Your task to perform on an android device: change the clock style Image 0: 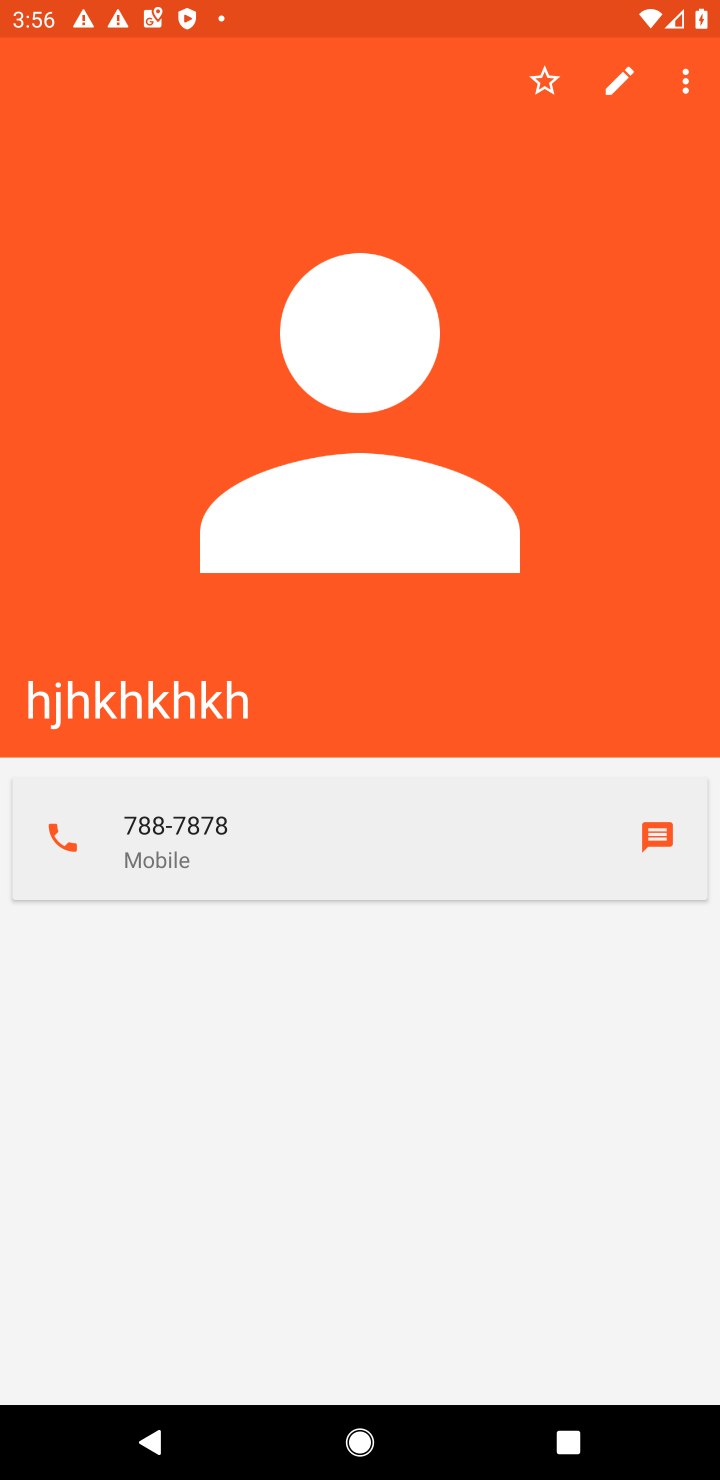
Step 0: press home button
Your task to perform on an android device: change the clock style Image 1: 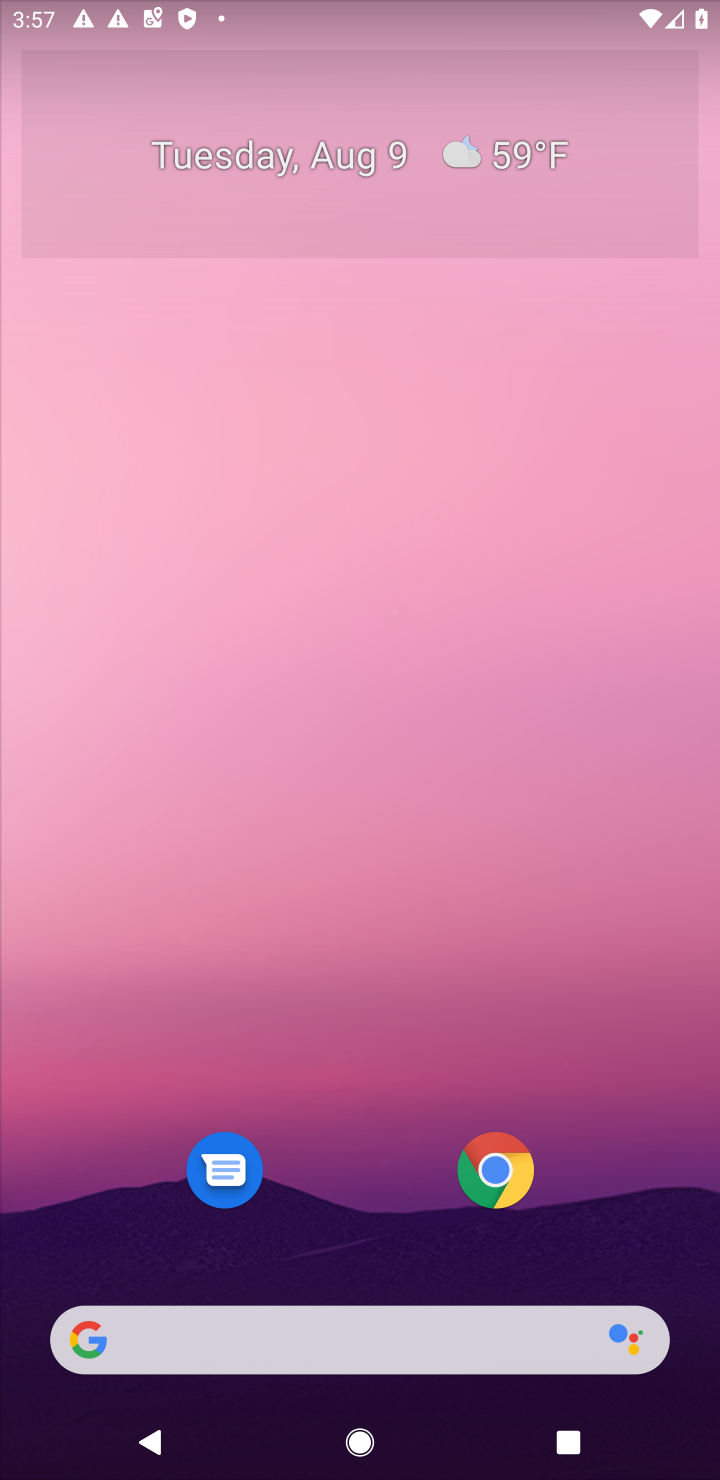
Step 1: drag from (309, 1090) to (230, 194)
Your task to perform on an android device: change the clock style Image 2: 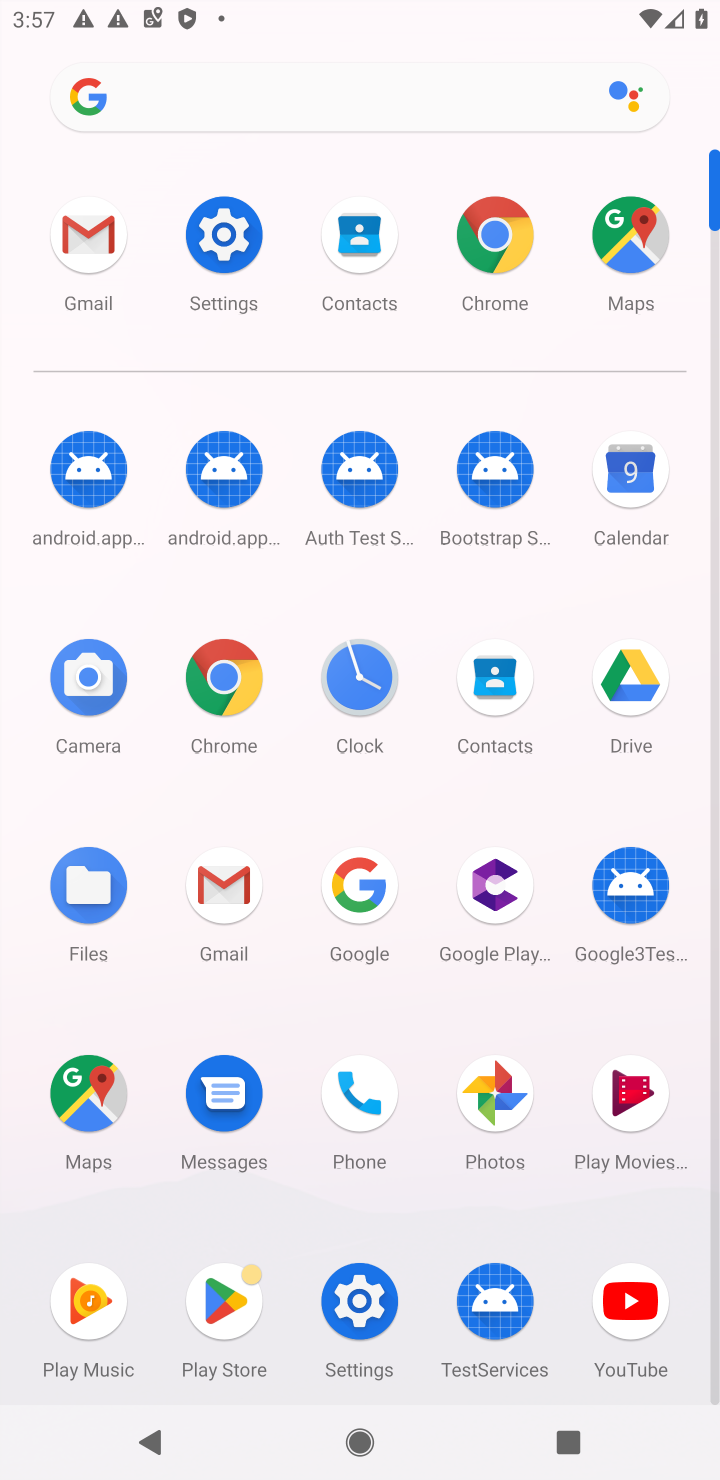
Step 2: click (360, 705)
Your task to perform on an android device: change the clock style Image 3: 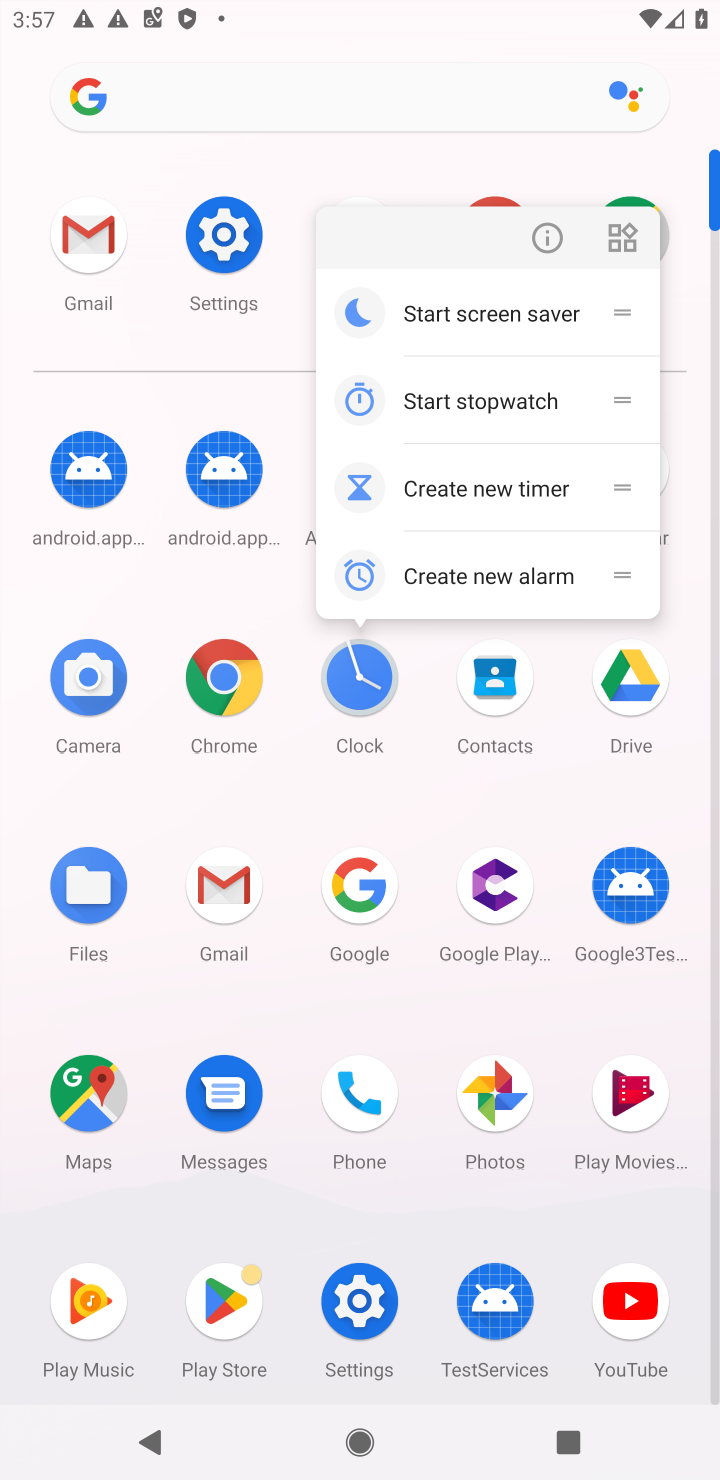
Step 3: click (364, 679)
Your task to perform on an android device: change the clock style Image 4: 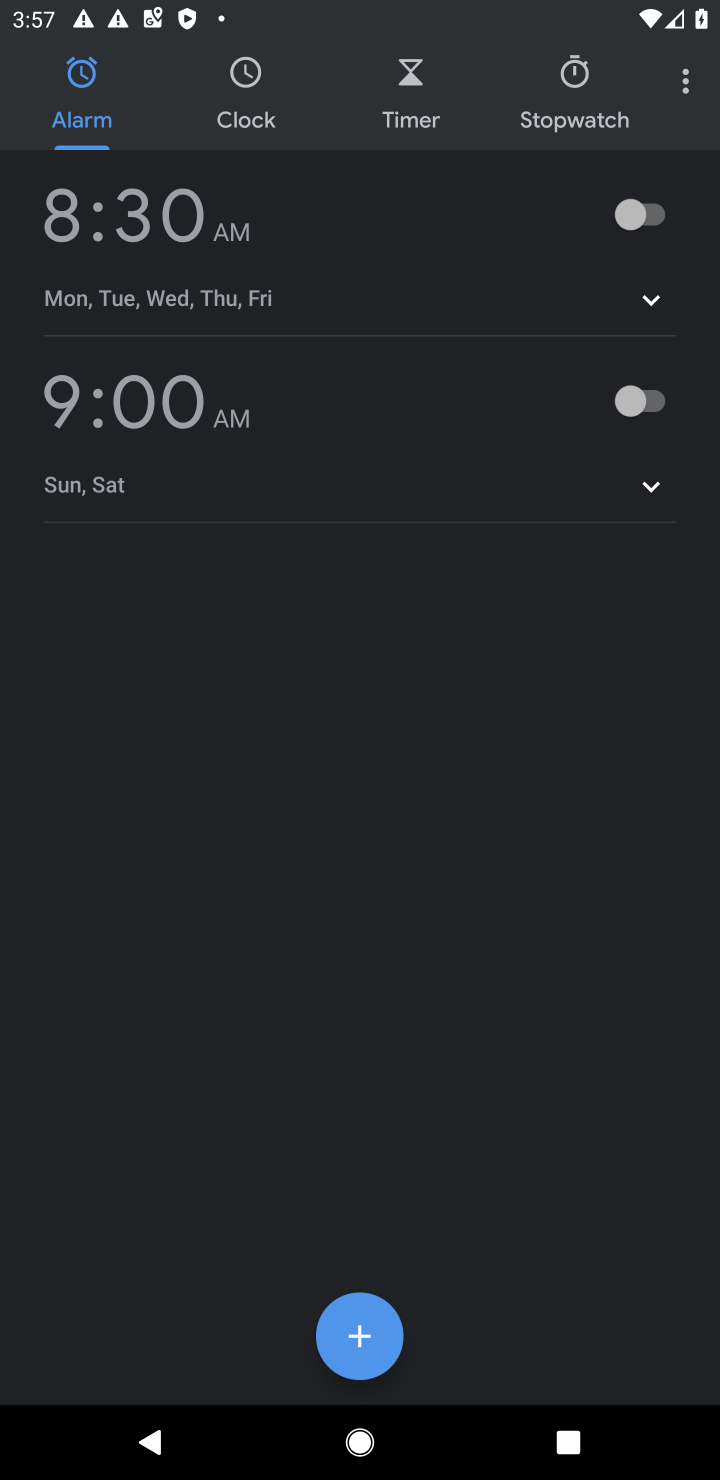
Step 4: click (689, 89)
Your task to perform on an android device: change the clock style Image 5: 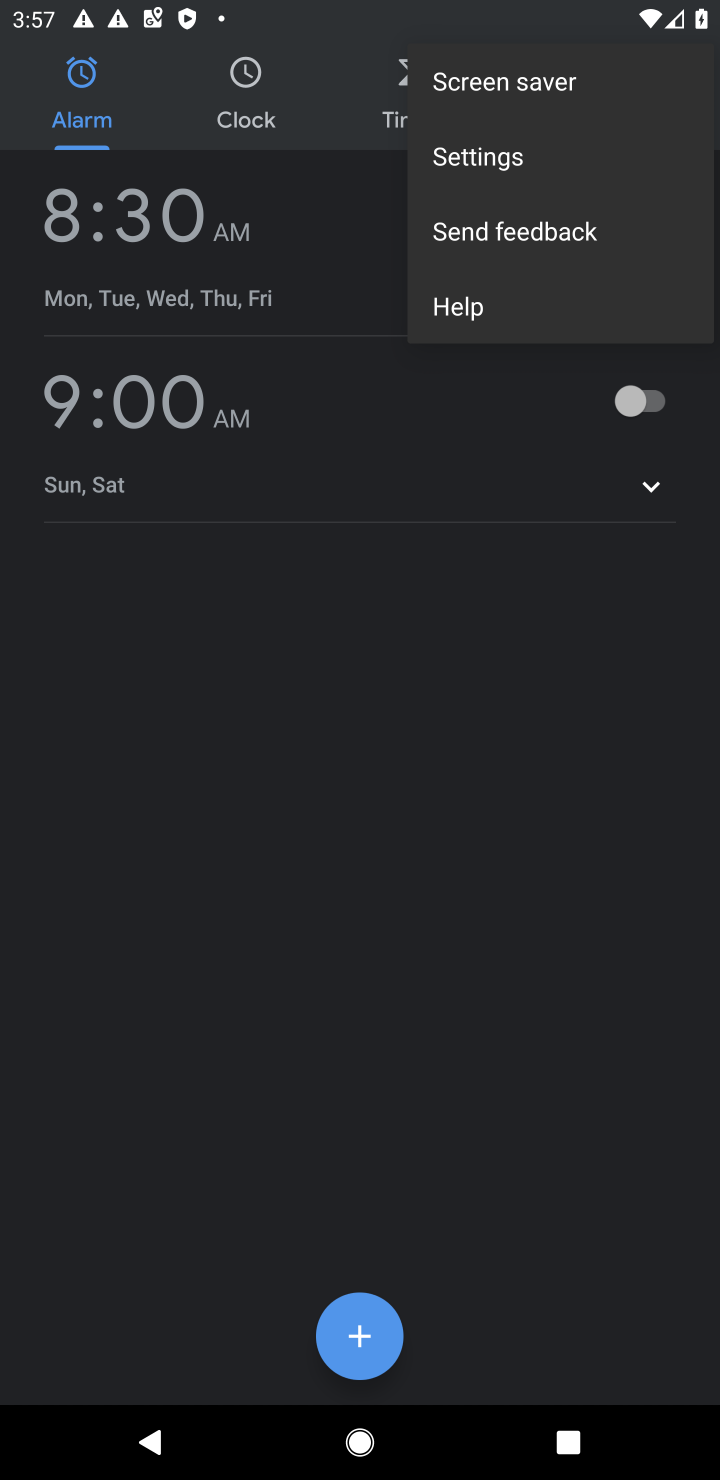
Step 5: click (505, 162)
Your task to perform on an android device: change the clock style Image 6: 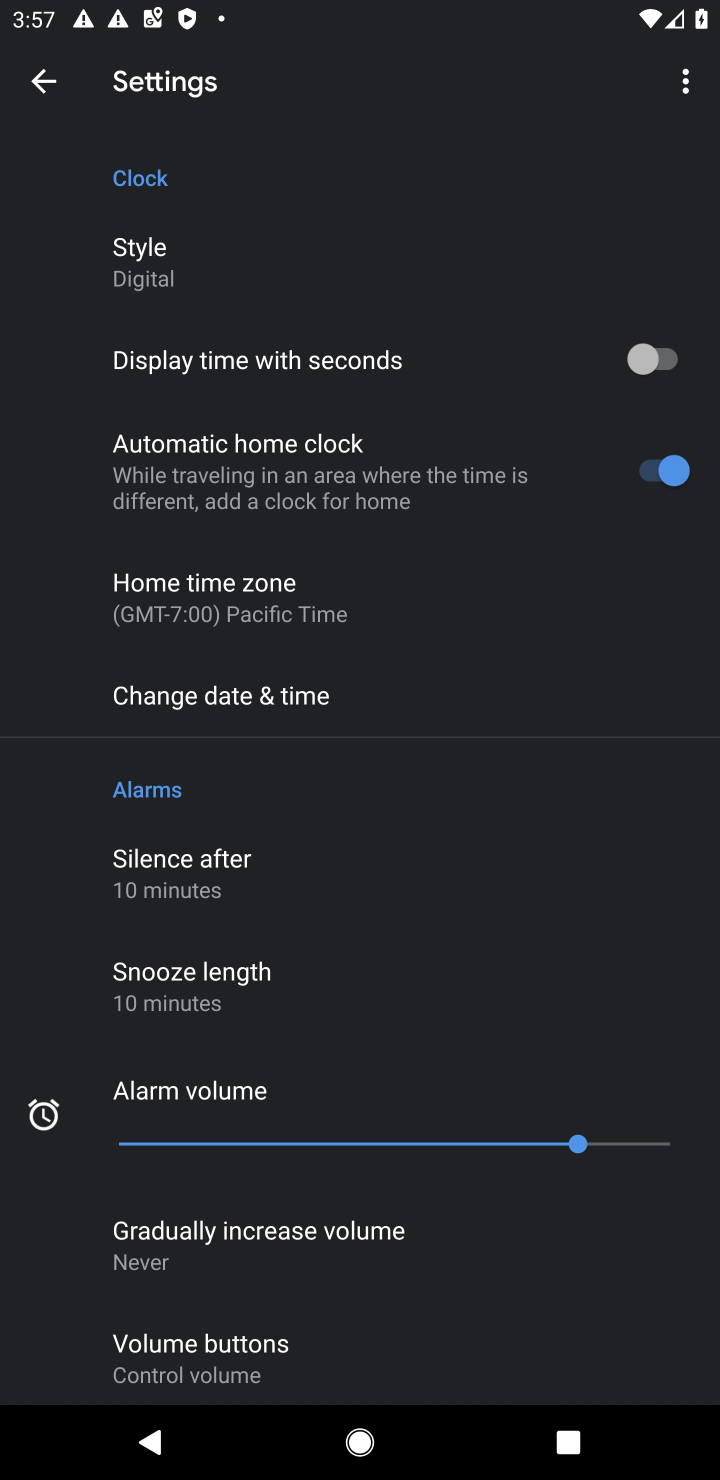
Step 6: click (156, 285)
Your task to perform on an android device: change the clock style Image 7: 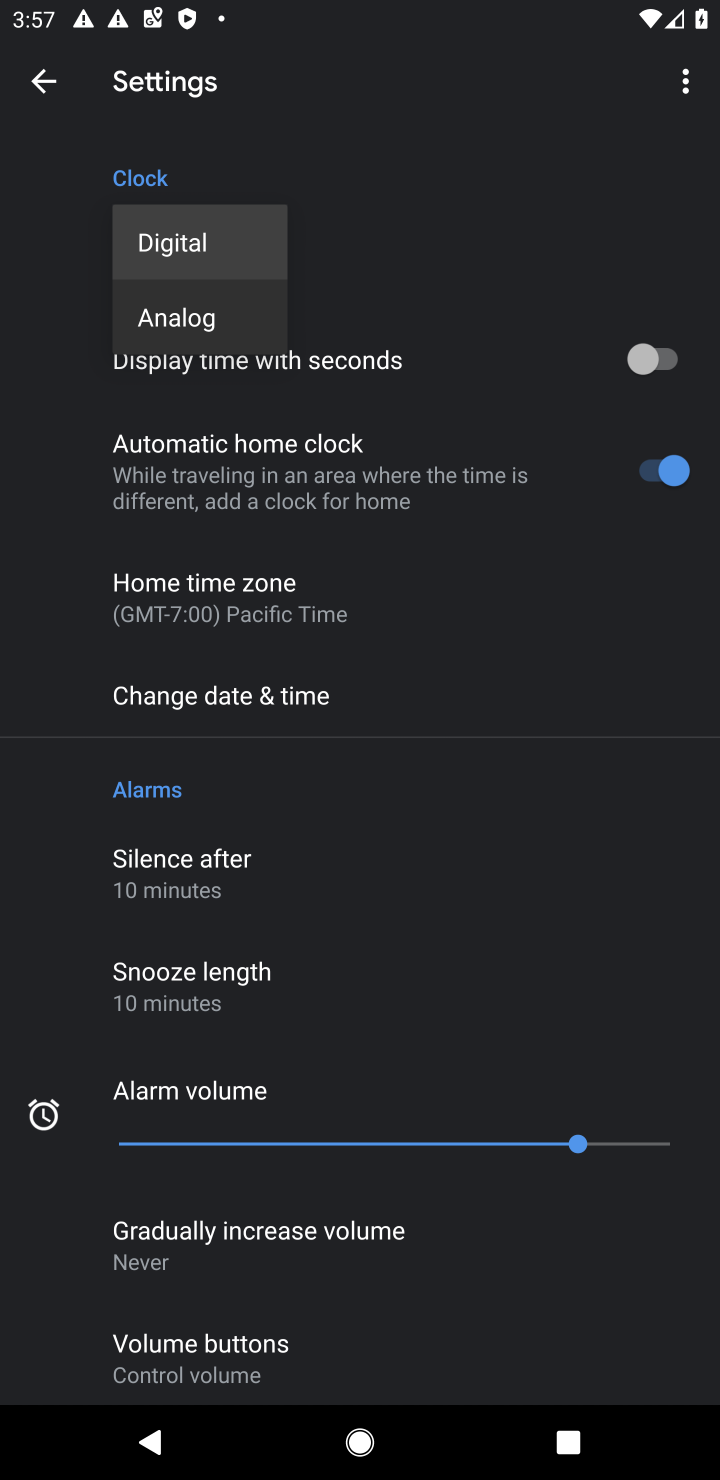
Step 7: click (164, 322)
Your task to perform on an android device: change the clock style Image 8: 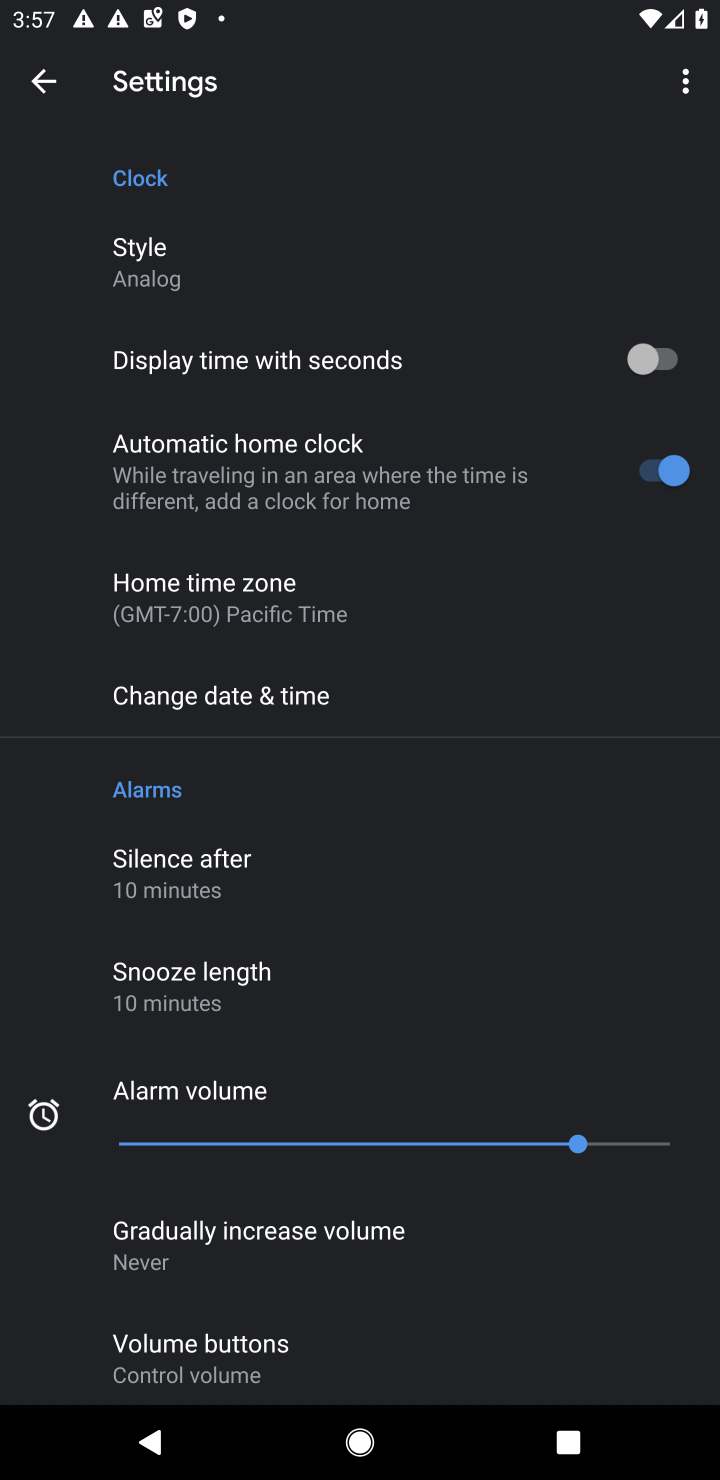
Step 8: task complete